Your task to perform on an android device: set the stopwatch Image 0: 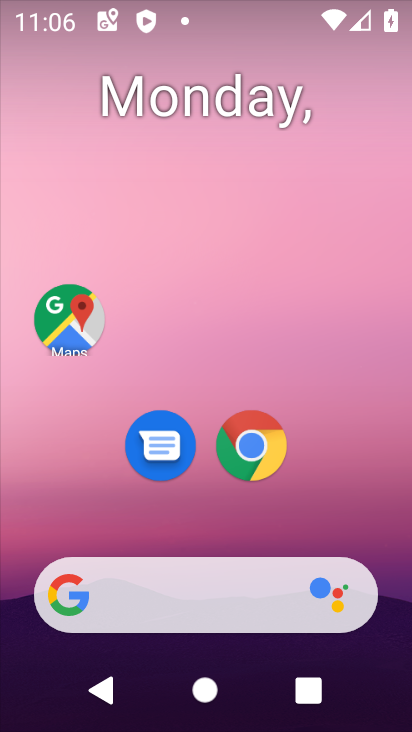
Step 0: press home button
Your task to perform on an android device: set the stopwatch Image 1: 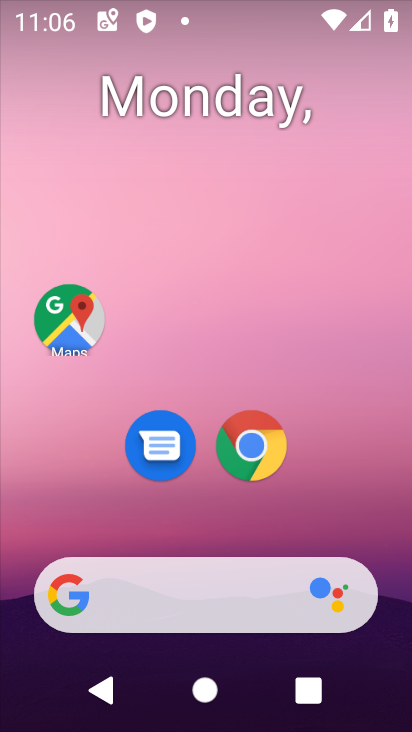
Step 1: drag from (189, 493) to (274, 93)
Your task to perform on an android device: set the stopwatch Image 2: 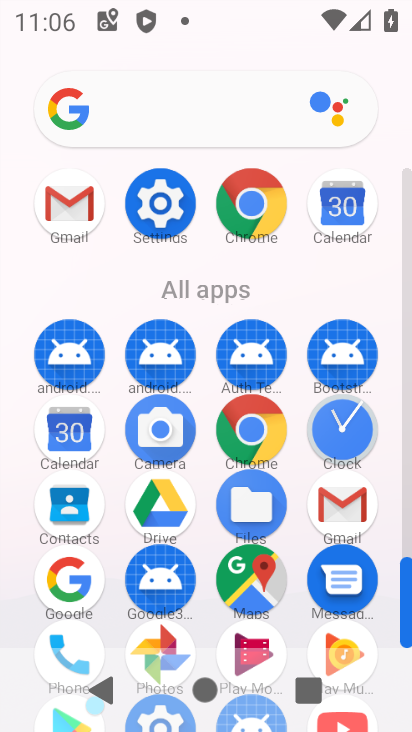
Step 2: click (351, 442)
Your task to perform on an android device: set the stopwatch Image 3: 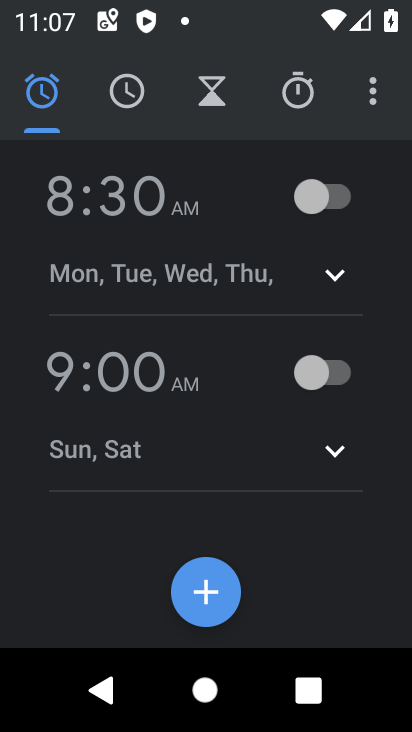
Step 3: click (304, 94)
Your task to perform on an android device: set the stopwatch Image 4: 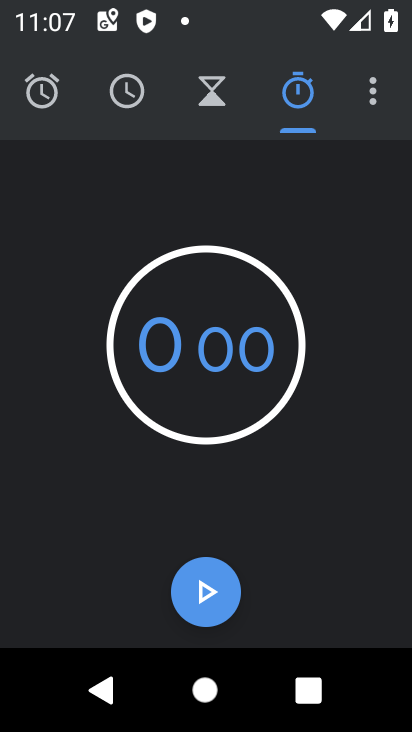
Step 4: click (199, 597)
Your task to perform on an android device: set the stopwatch Image 5: 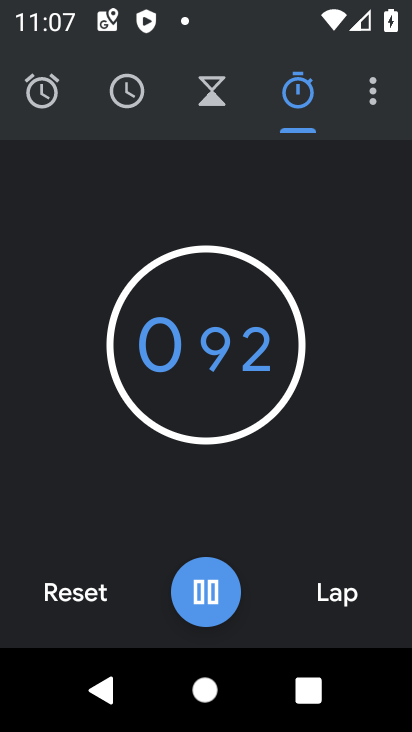
Step 5: click (199, 597)
Your task to perform on an android device: set the stopwatch Image 6: 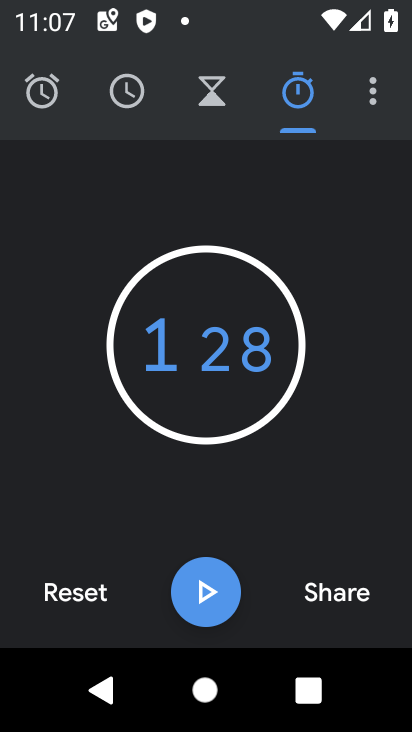
Step 6: task complete